Your task to perform on an android device: Search for "razer nari" on costco.com, select the first entry, add it to the cart, then select checkout. Image 0: 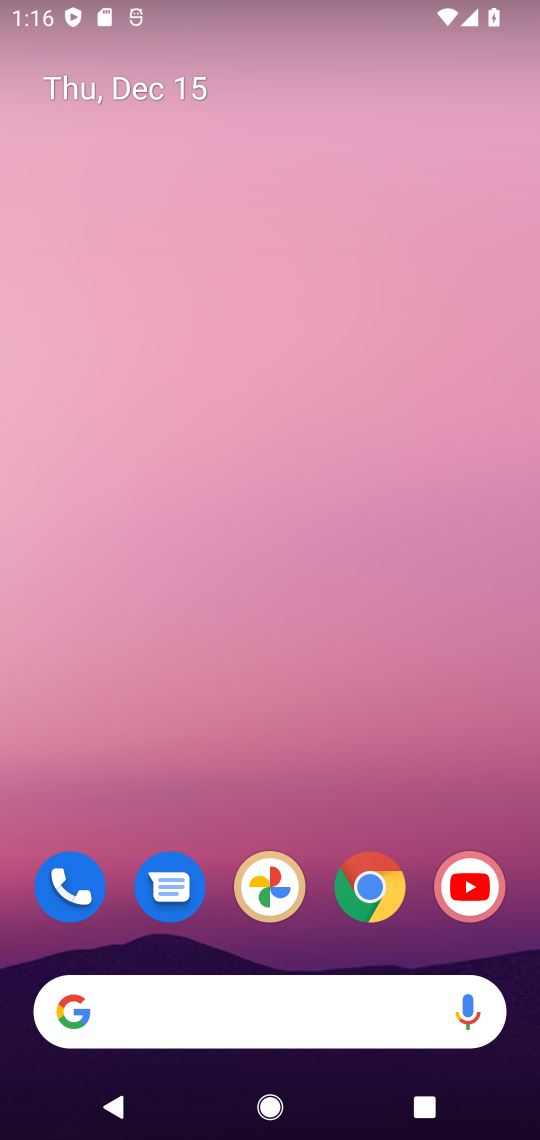
Step 0: click (380, 895)
Your task to perform on an android device: Search for "razer nari" on costco.com, select the first entry, add it to the cart, then select checkout. Image 1: 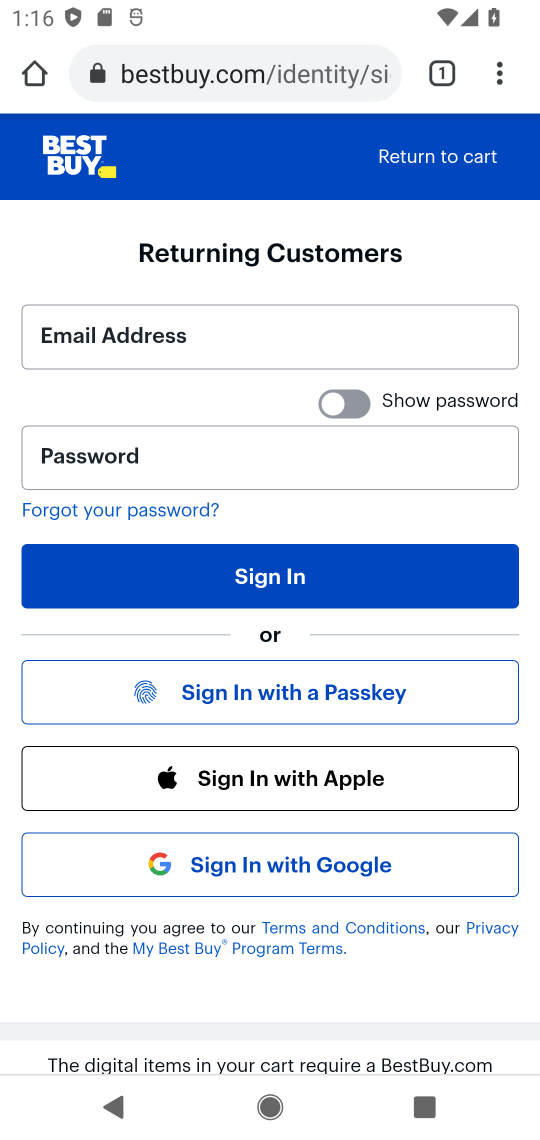
Step 1: click (206, 85)
Your task to perform on an android device: Search for "razer nari" on costco.com, select the first entry, add it to the cart, then select checkout. Image 2: 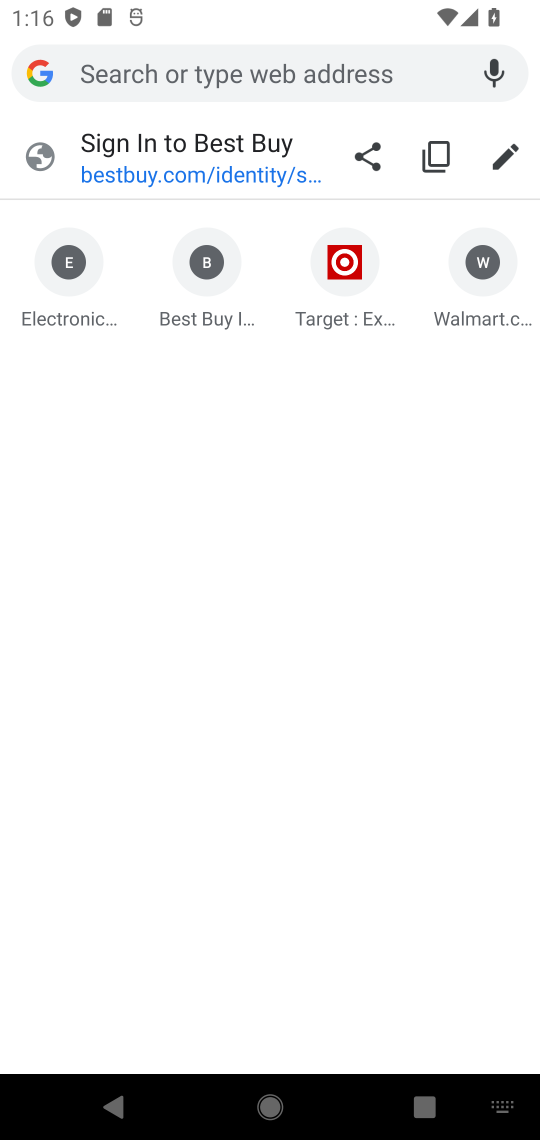
Step 2: type "costco.com"
Your task to perform on an android device: Search for "razer nari" on costco.com, select the first entry, add it to the cart, then select checkout. Image 3: 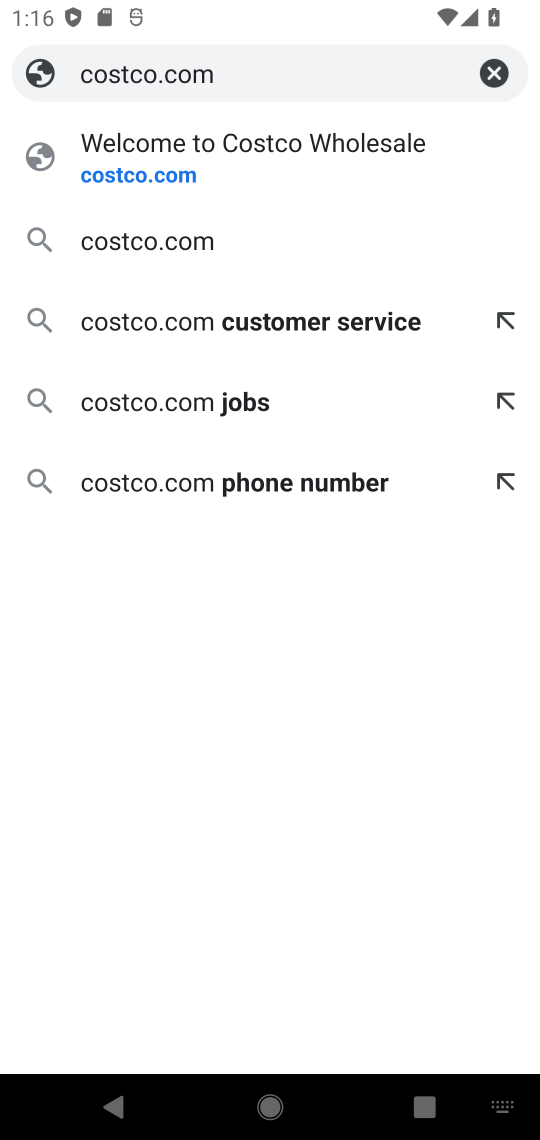
Step 3: click (132, 170)
Your task to perform on an android device: Search for "razer nari" on costco.com, select the first entry, add it to the cart, then select checkout. Image 4: 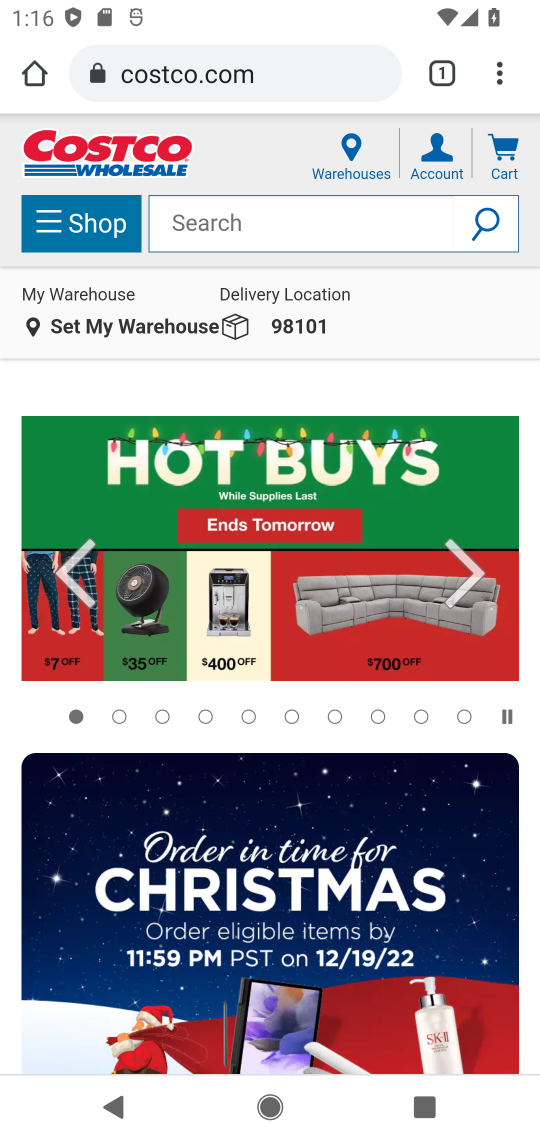
Step 4: click (172, 212)
Your task to perform on an android device: Search for "razer nari" on costco.com, select the first entry, add it to the cart, then select checkout. Image 5: 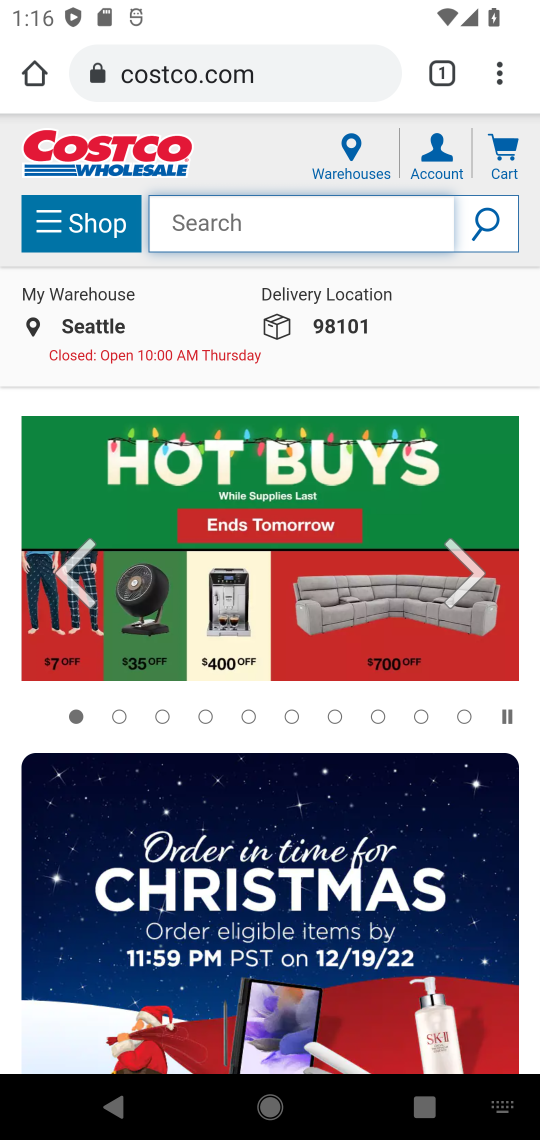
Step 5: type "razer nari"
Your task to perform on an android device: Search for "razer nari" on costco.com, select the first entry, add it to the cart, then select checkout. Image 6: 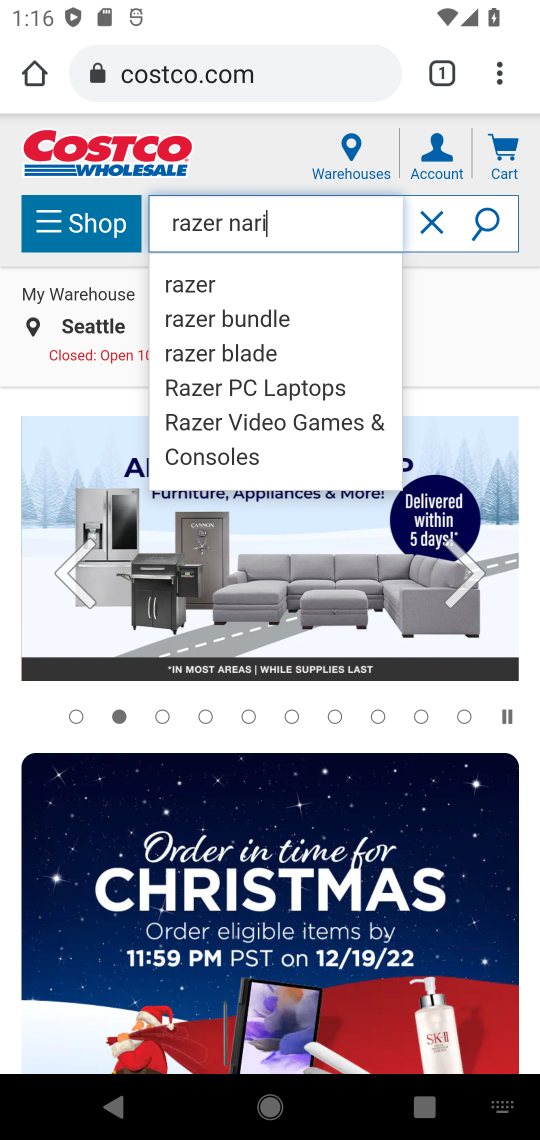
Step 6: click (477, 231)
Your task to perform on an android device: Search for "razer nari" on costco.com, select the first entry, add it to the cart, then select checkout. Image 7: 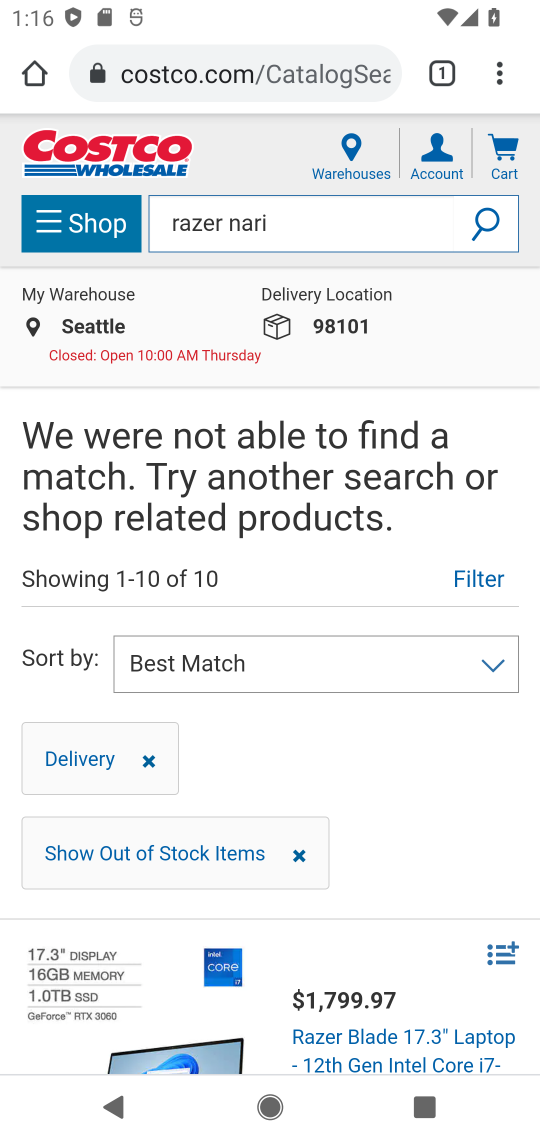
Step 7: task complete